Your task to perform on an android device: delete browsing data in the chrome app Image 0: 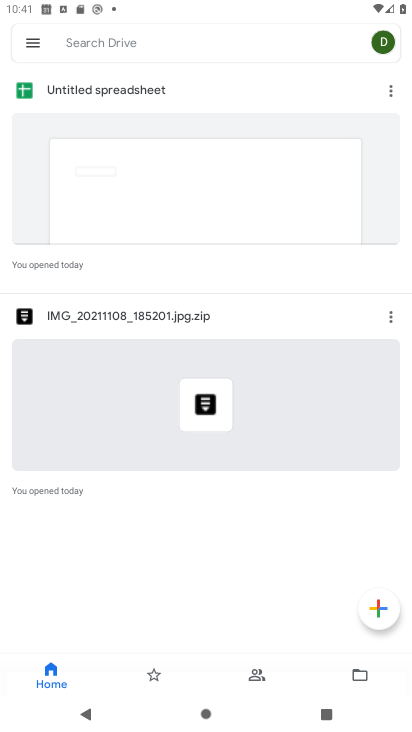
Step 0: press home button
Your task to perform on an android device: delete browsing data in the chrome app Image 1: 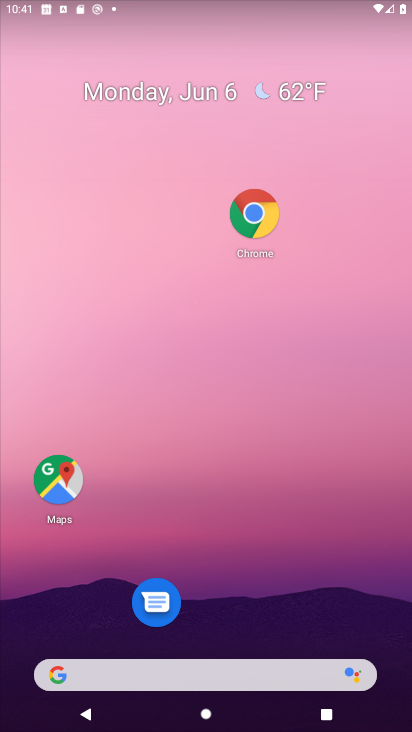
Step 1: drag from (203, 604) to (207, 61)
Your task to perform on an android device: delete browsing data in the chrome app Image 2: 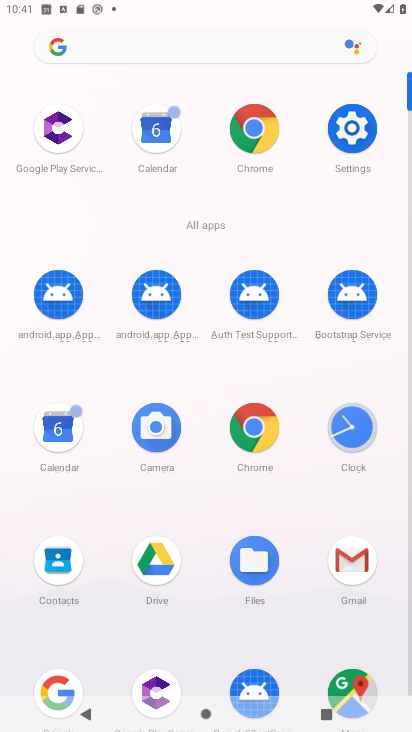
Step 2: click (257, 422)
Your task to perform on an android device: delete browsing data in the chrome app Image 3: 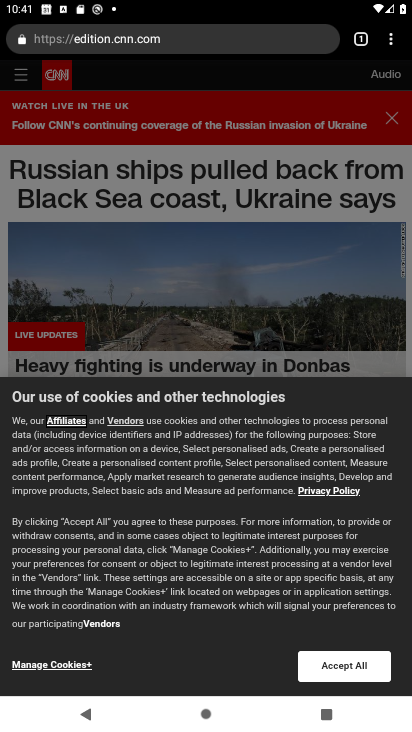
Step 3: click (395, 43)
Your task to perform on an android device: delete browsing data in the chrome app Image 4: 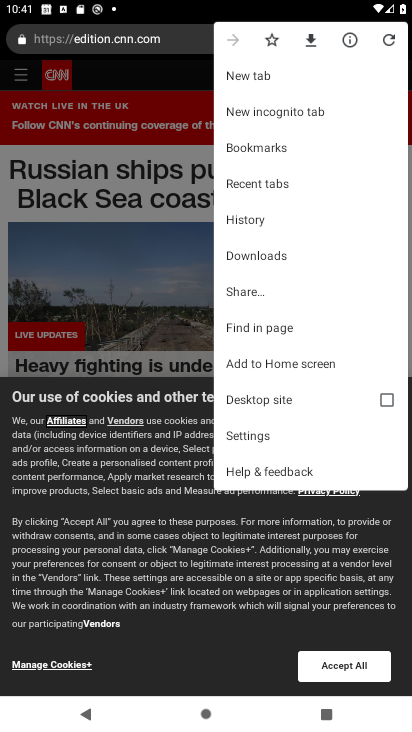
Step 4: click (283, 226)
Your task to perform on an android device: delete browsing data in the chrome app Image 5: 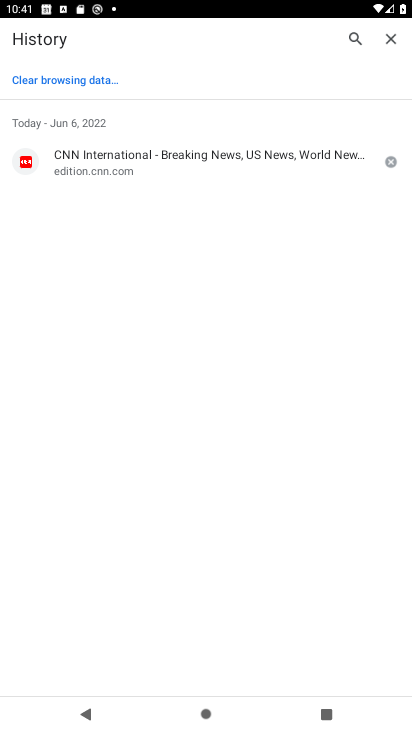
Step 5: click (67, 80)
Your task to perform on an android device: delete browsing data in the chrome app Image 6: 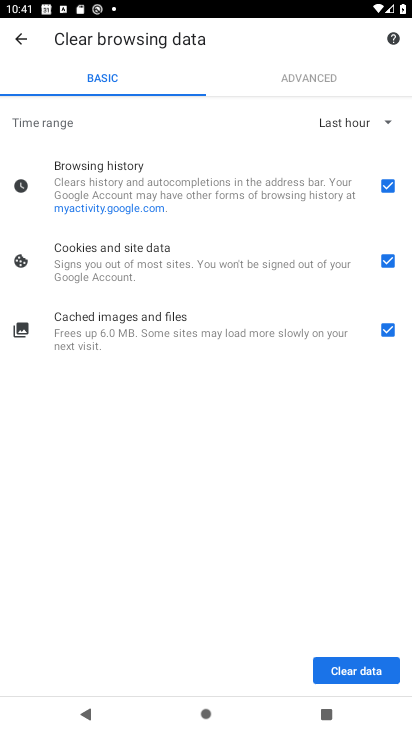
Step 6: click (372, 672)
Your task to perform on an android device: delete browsing data in the chrome app Image 7: 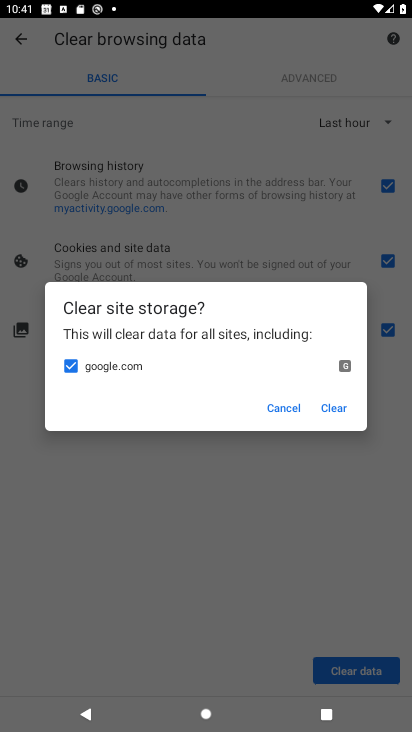
Step 7: click (334, 410)
Your task to perform on an android device: delete browsing data in the chrome app Image 8: 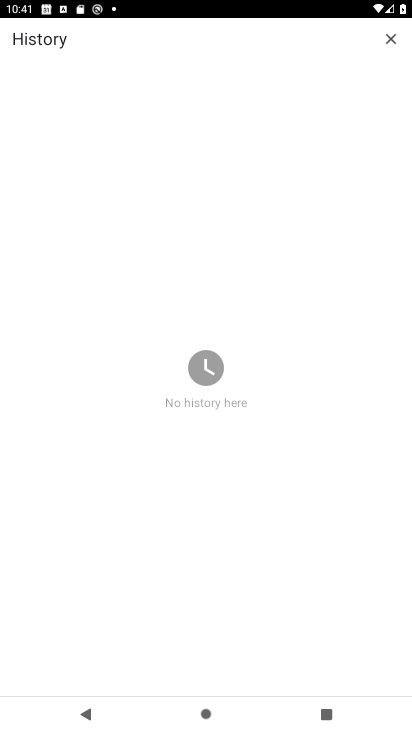
Step 8: task complete